Your task to perform on an android device: Add "logitech g933" to the cart on newegg, then select checkout. Image 0: 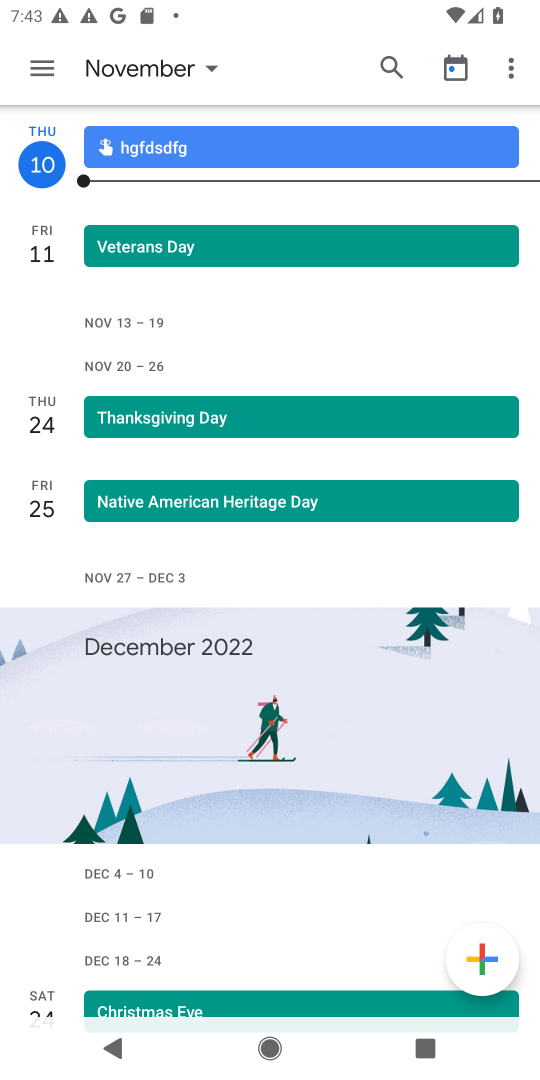
Step 0: press home button
Your task to perform on an android device: Add "logitech g933" to the cart on newegg, then select checkout. Image 1: 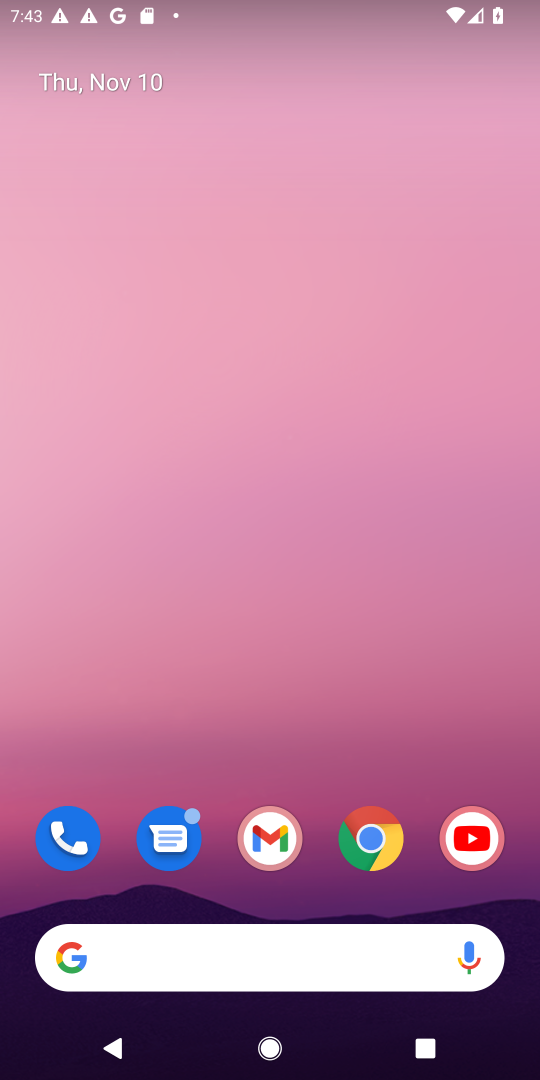
Step 1: drag from (311, 918) to (332, 0)
Your task to perform on an android device: Add "logitech g933" to the cart on newegg, then select checkout. Image 2: 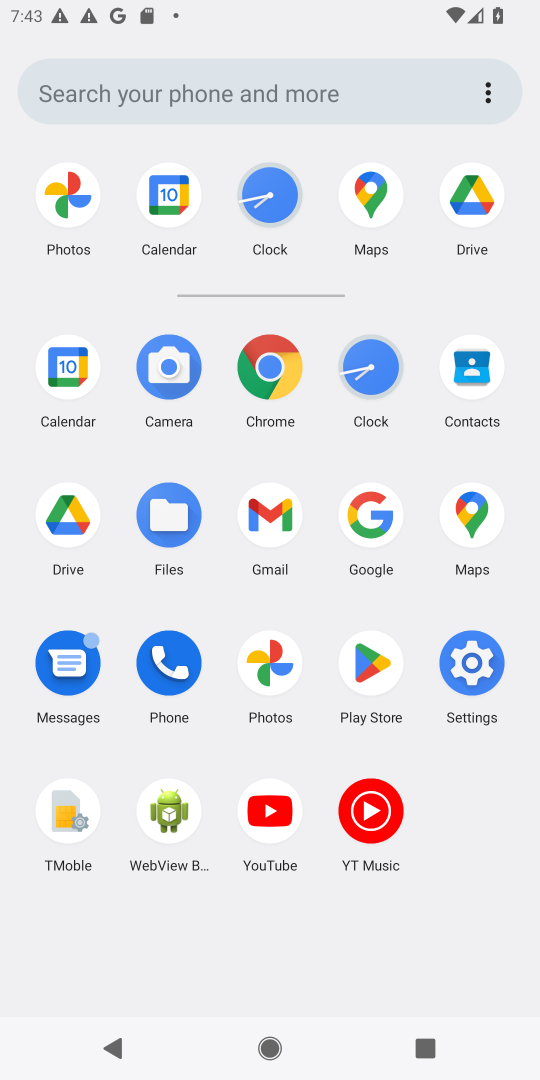
Step 2: click (273, 365)
Your task to perform on an android device: Add "logitech g933" to the cart on newegg, then select checkout. Image 3: 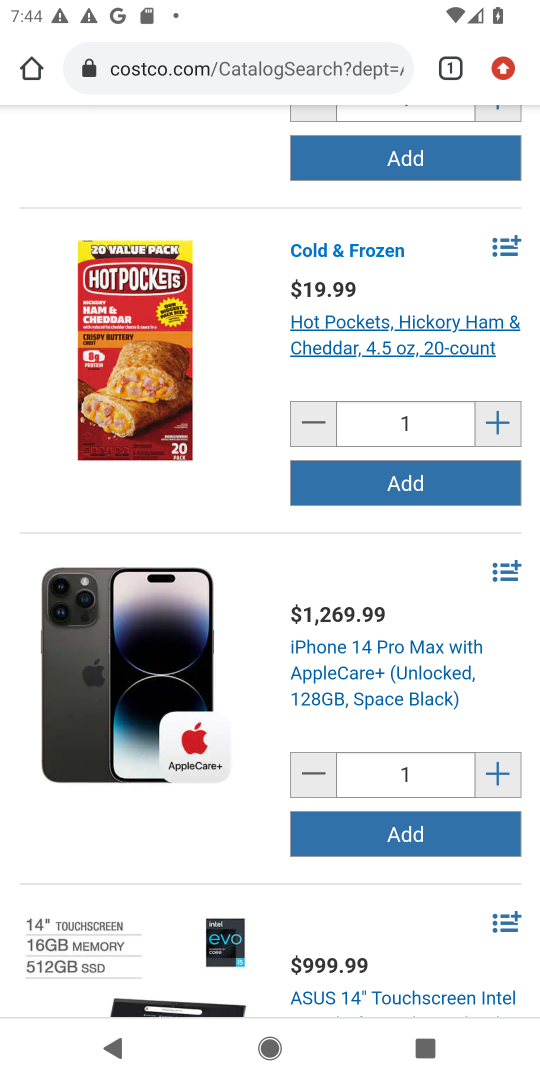
Step 3: click (284, 71)
Your task to perform on an android device: Add "logitech g933" to the cart on newegg, then select checkout. Image 4: 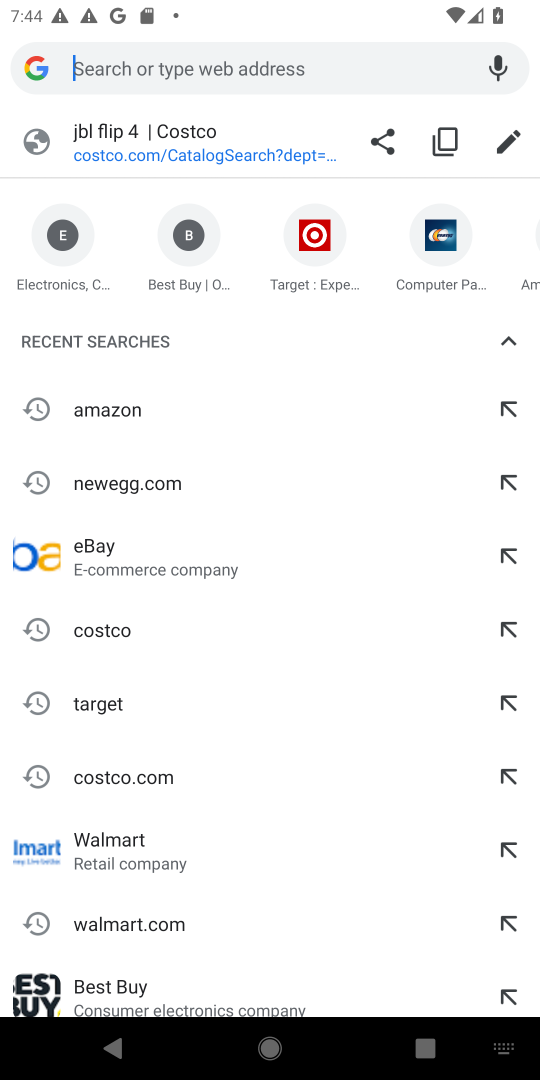
Step 4: type "newegg.com"
Your task to perform on an android device: Add "logitech g933" to the cart on newegg, then select checkout. Image 5: 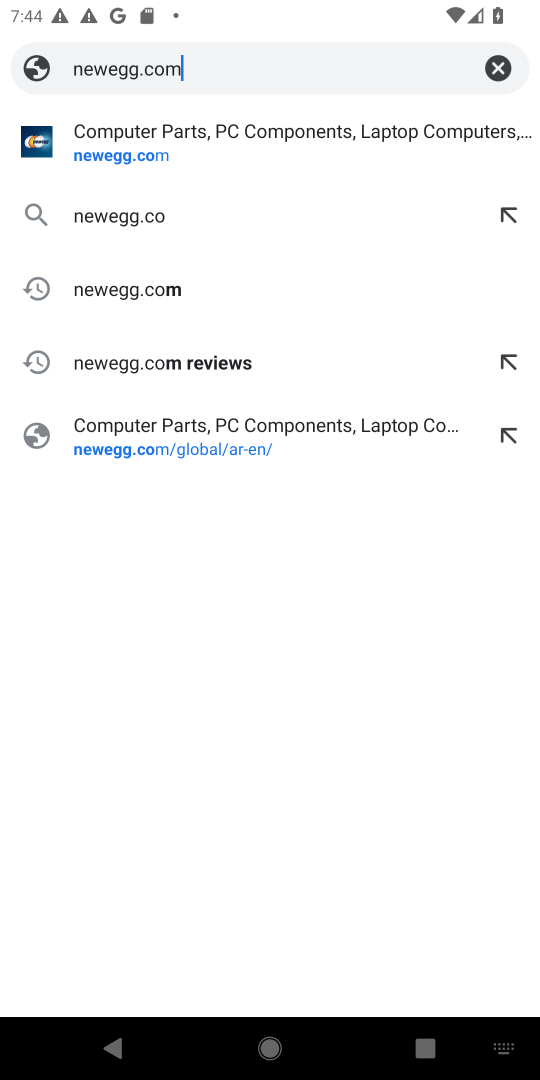
Step 5: press enter
Your task to perform on an android device: Add "logitech g933" to the cart on newegg, then select checkout. Image 6: 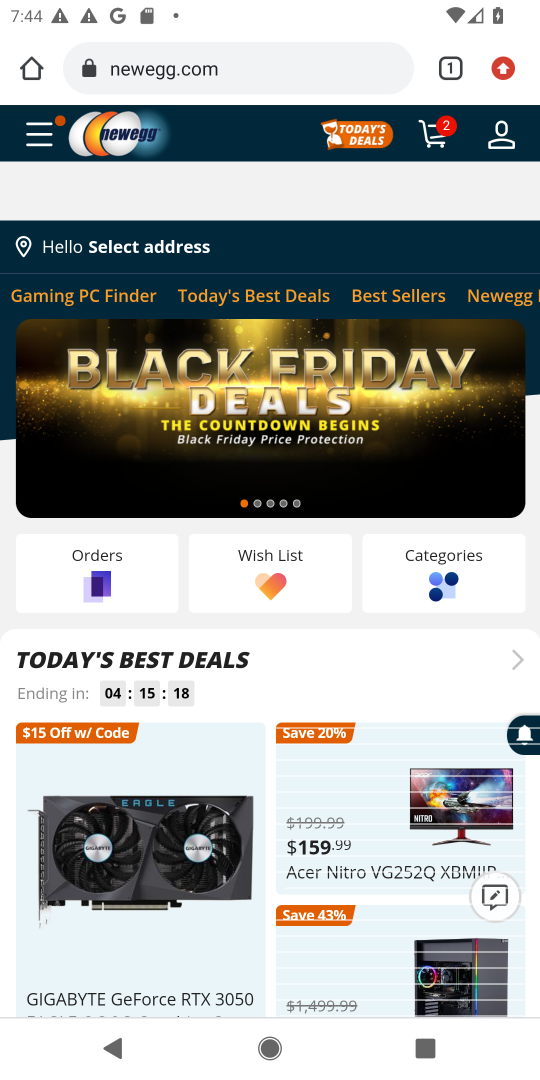
Step 6: click (365, 186)
Your task to perform on an android device: Add "logitech g933" to the cart on newegg, then select checkout. Image 7: 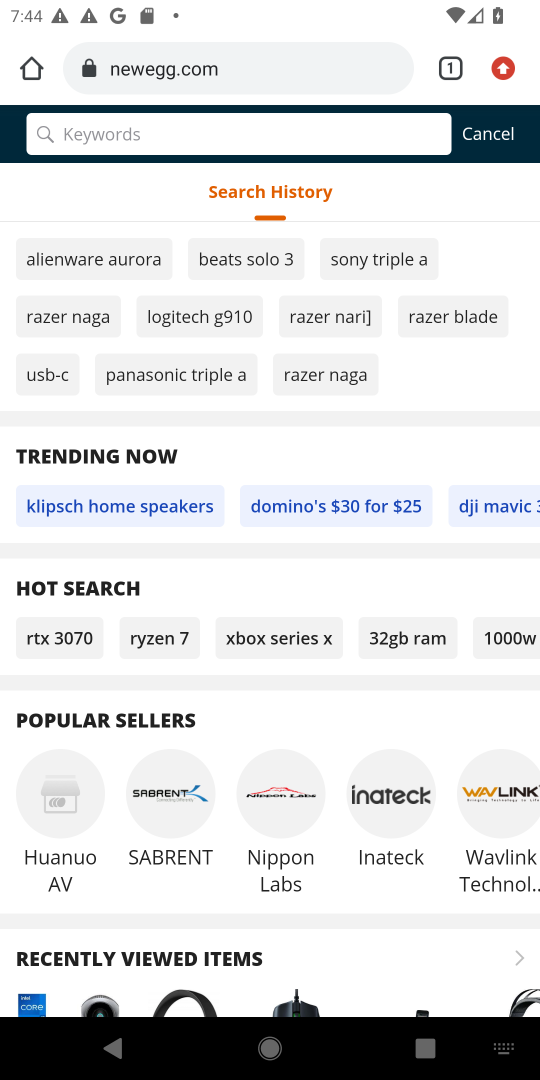
Step 7: type "logitech g933"
Your task to perform on an android device: Add "logitech g933" to the cart on newegg, then select checkout. Image 8: 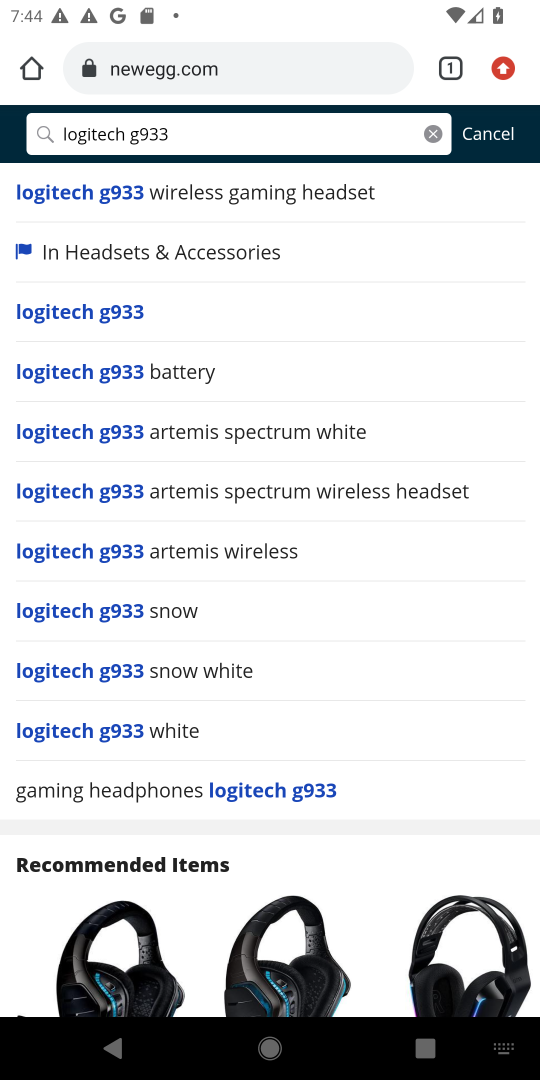
Step 8: press enter
Your task to perform on an android device: Add "logitech g933" to the cart on newegg, then select checkout. Image 9: 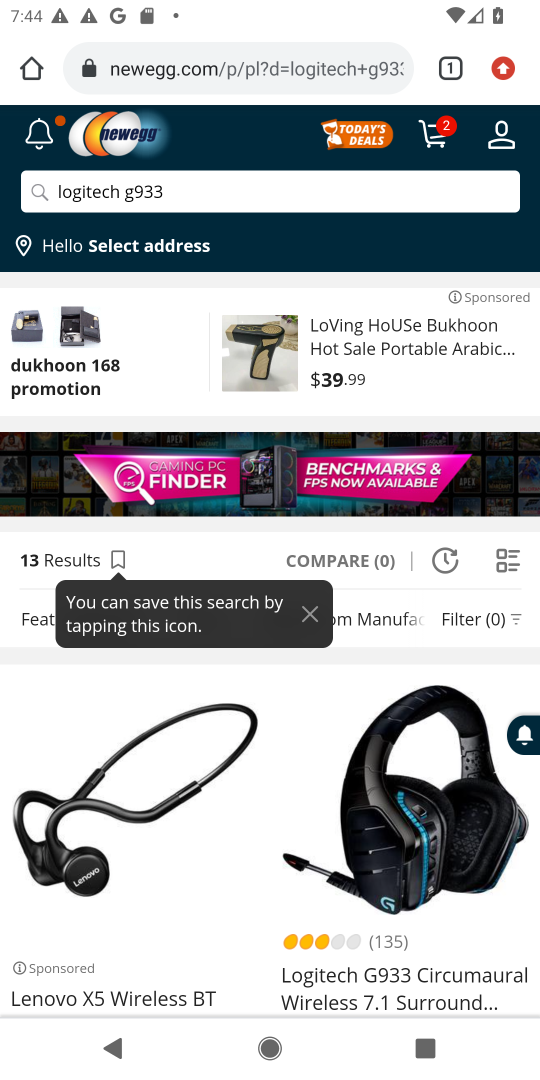
Step 9: click (388, 980)
Your task to perform on an android device: Add "logitech g933" to the cart on newegg, then select checkout. Image 10: 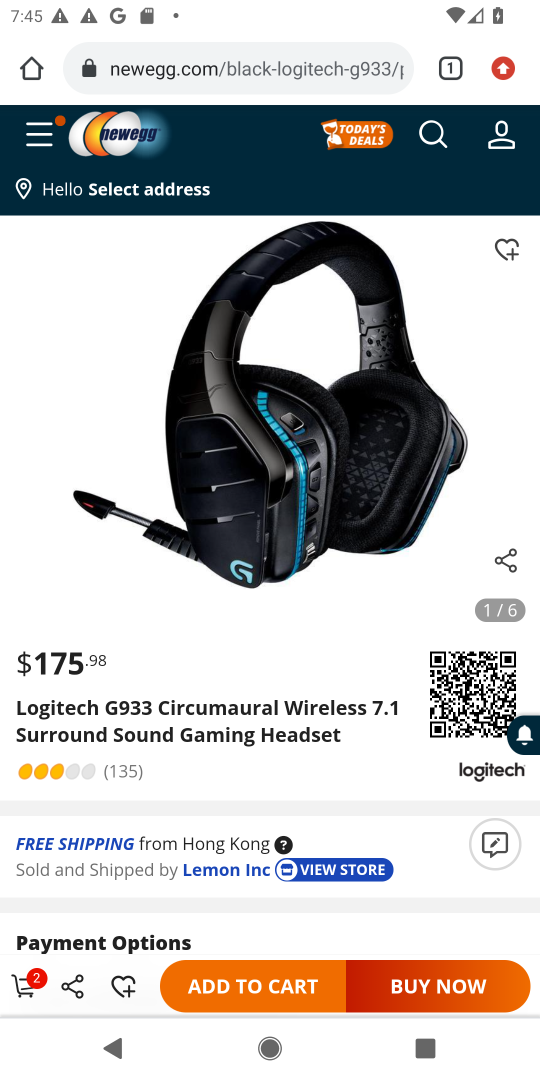
Step 10: click (282, 980)
Your task to perform on an android device: Add "logitech g933" to the cart on newegg, then select checkout. Image 11: 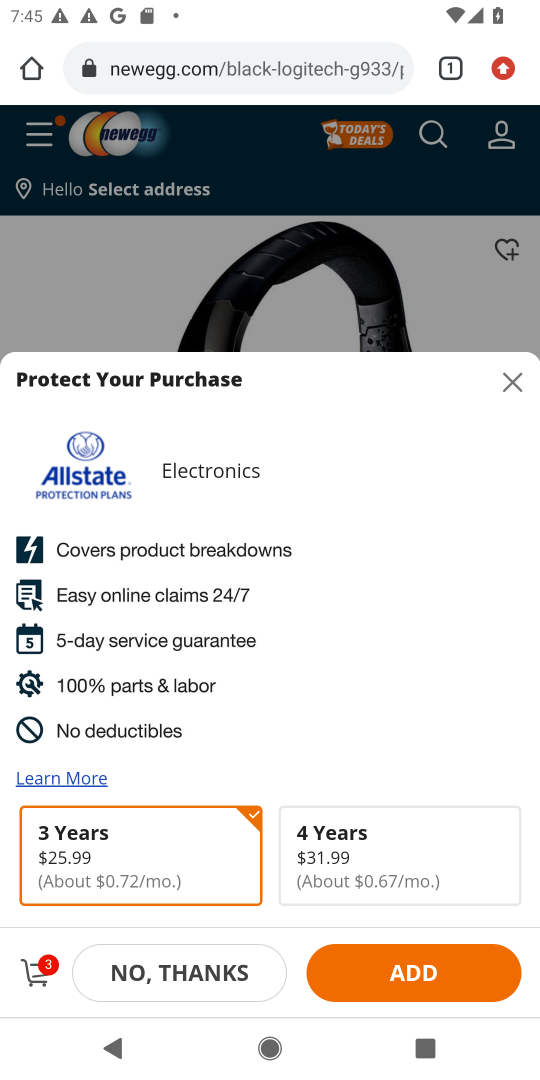
Step 11: click (40, 967)
Your task to perform on an android device: Add "logitech g933" to the cart on newegg, then select checkout. Image 12: 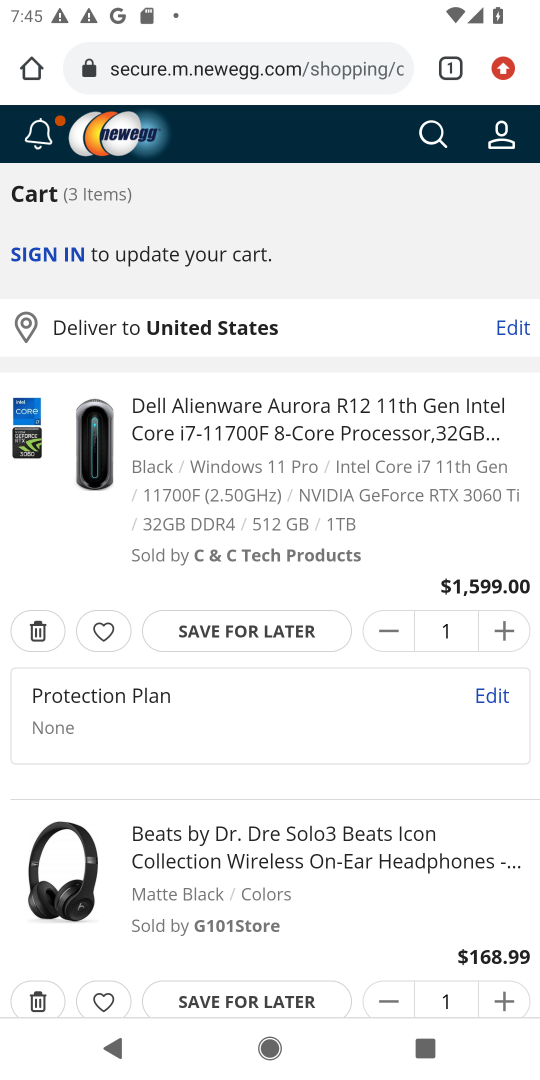
Step 12: click (333, 912)
Your task to perform on an android device: Add "logitech g933" to the cart on newegg, then select checkout. Image 13: 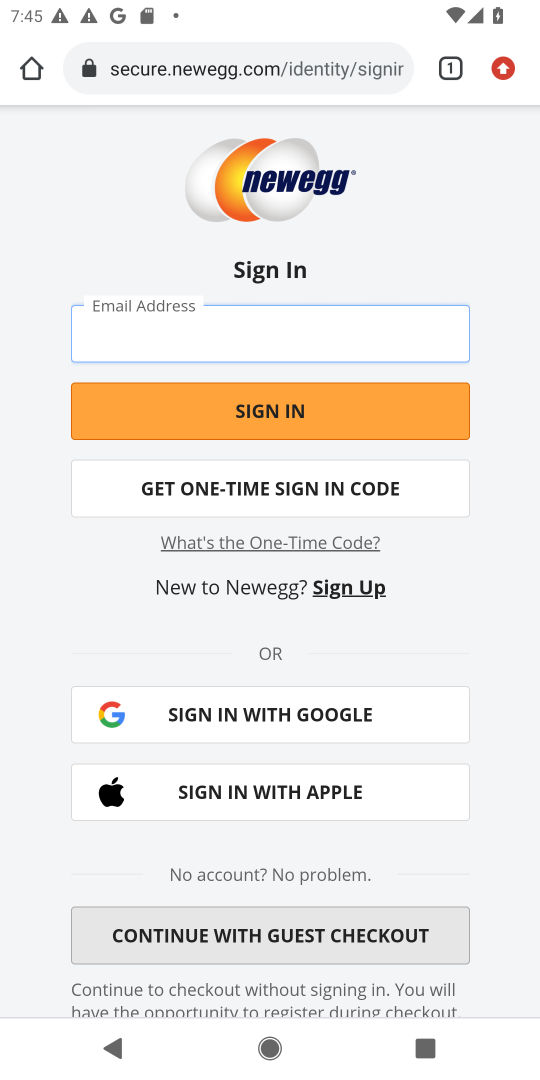
Step 13: task complete